Your task to perform on an android device: View the shopping cart on ebay.com. Add razer kraken to the cart on ebay.com, then select checkout. Image 0: 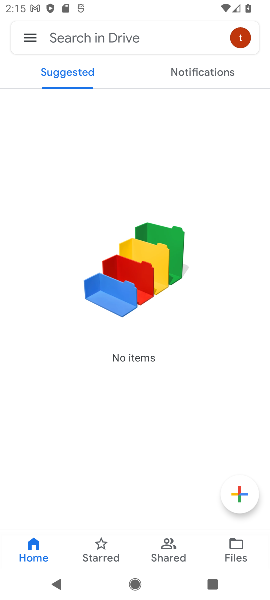
Step 0: press home button
Your task to perform on an android device: View the shopping cart on ebay.com. Add razer kraken to the cart on ebay.com, then select checkout. Image 1: 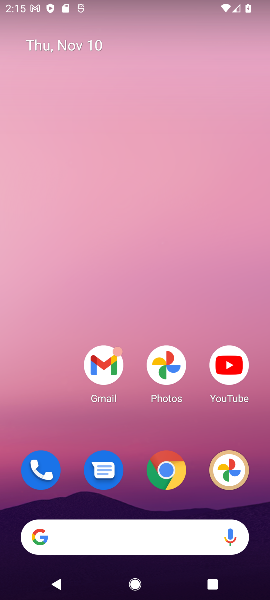
Step 1: click (169, 471)
Your task to perform on an android device: View the shopping cart on ebay.com. Add razer kraken to the cart on ebay.com, then select checkout. Image 2: 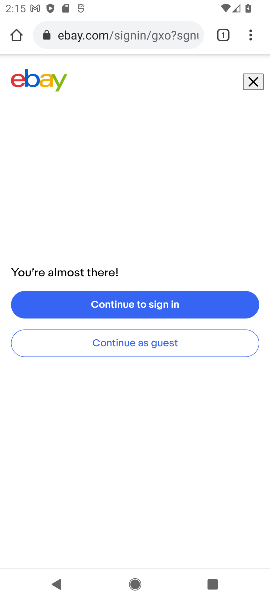
Step 2: click (105, 33)
Your task to perform on an android device: View the shopping cart on ebay.com. Add razer kraken to the cart on ebay.com, then select checkout. Image 3: 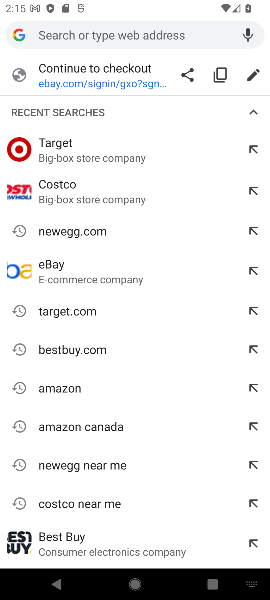
Step 3: type "ebay.com"
Your task to perform on an android device: View the shopping cart on ebay.com. Add razer kraken to the cart on ebay.com, then select checkout. Image 4: 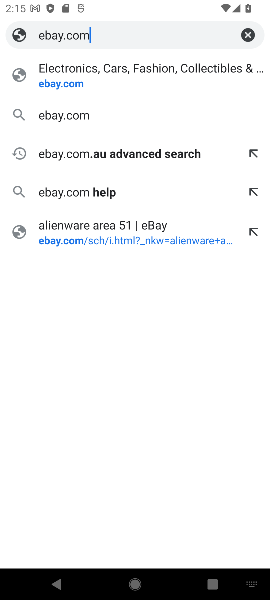
Step 4: click (76, 117)
Your task to perform on an android device: View the shopping cart on ebay.com. Add razer kraken to the cart on ebay.com, then select checkout. Image 5: 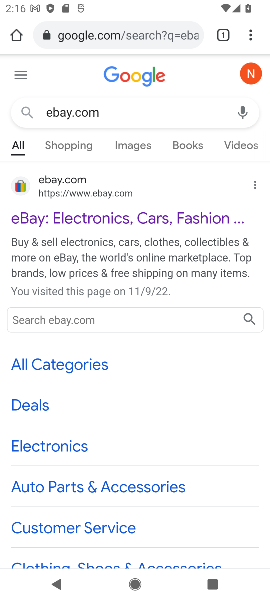
Step 5: click (122, 215)
Your task to perform on an android device: View the shopping cart on ebay.com. Add razer kraken to the cart on ebay.com, then select checkout. Image 6: 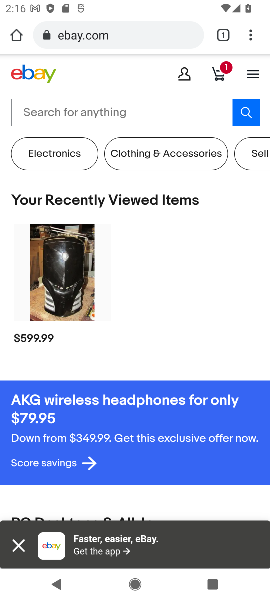
Step 6: click (225, 76)
Your task to perform on an android device: View the shopping cart on ebay.com. Add razer kraken to the cart on ebay.com, then select checkout. Image 7: 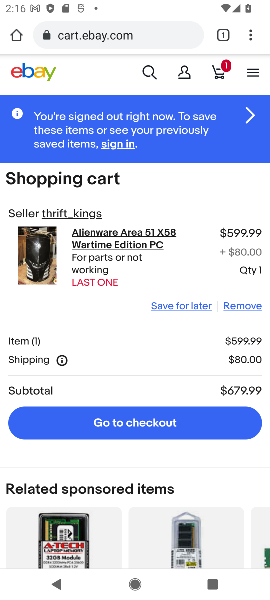
Step 7: click (148, 75)
Your task to perform on an android device: View the shopping cart on ebay.com. Add razer kraken to the cart on ebay.com, then select checkout. Image 8: 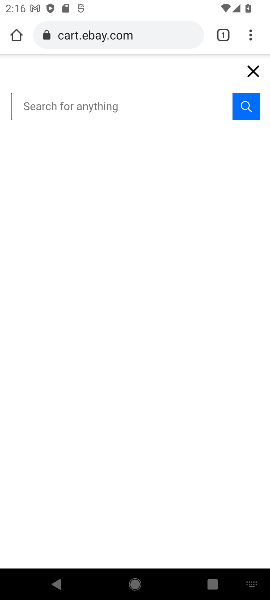
Step 8: type "razer kraken"
Your task to perform on an android device: View the shopping cart on ebay.com. Add razer kraken to the cart on ebay.com, then select checkout. Image 9: 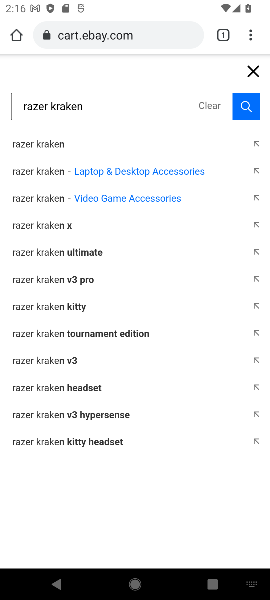
Step 9: click (41, 148)
Your task to perform on an android device: View the shopping cart on ebay.com. Add razer kraken to the cart on ebay.com, then select checkout. Image 10: 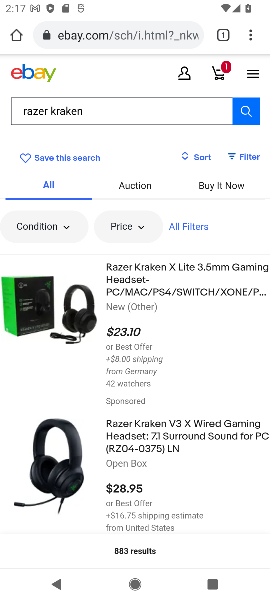
Step 10: click (156, 294)
Your task to perform on an android device: View the shopping cart on ebay.com. Add razer kraken to the cart on ebay.com, then select checkout. Image 11: 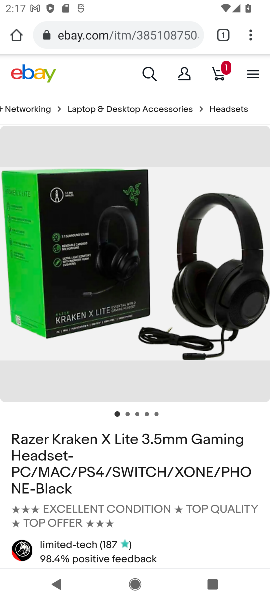
Step 11: drag from (183, 487) to (164, 173)
Your task to perform on an android device: View the shopping cart on ebay.com. Add razer kraken to the cart on ebay.com, then select checkout. Image 12: 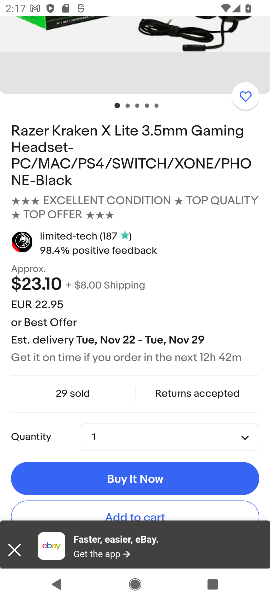
Step 12: drag from (188, 312) to (189, 201)
Your task to perform on an android device: View the shopping cart on ebay.com. Add razer kraken to the cart on ebay.com, then select checkout. Image 13: 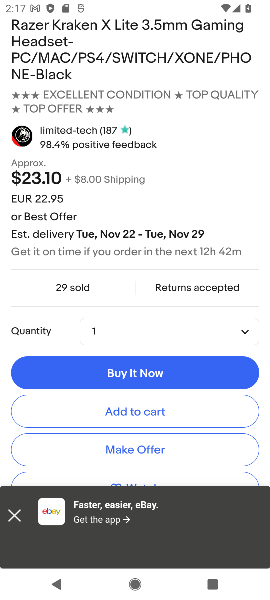
Step 13: click (154, 411)
Your task to perform on an android device: View the shopping cart on ebay.com. Add razer kraken to the cart on ebay.com, then select checkout. Image 14: 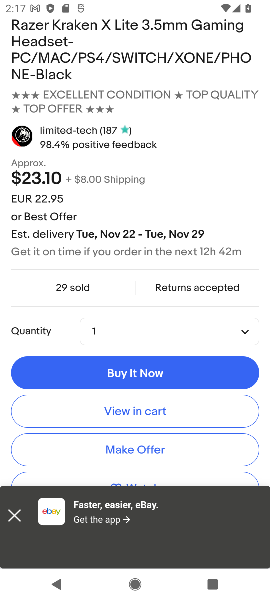
Step 14: click (154, 411)
Your task to perform on an android device: View the shopping cart on ebay.com. Add razer kraken to the cart on ebay.com, then select checkout. Image 15: 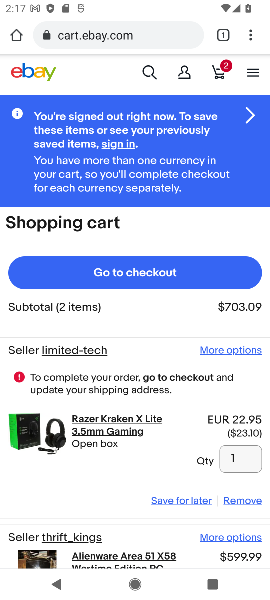
Step 15: click (162, 277)
Your task to perform on an android device: View the shopping cart on ebay.com. Add razer kraken to the cart on ebay.com, then select checkout. Image 16: 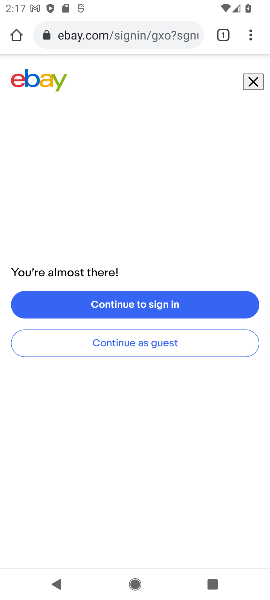
Step 16: task complete